Your task to perform on an android device: toggle wifi Image 0: 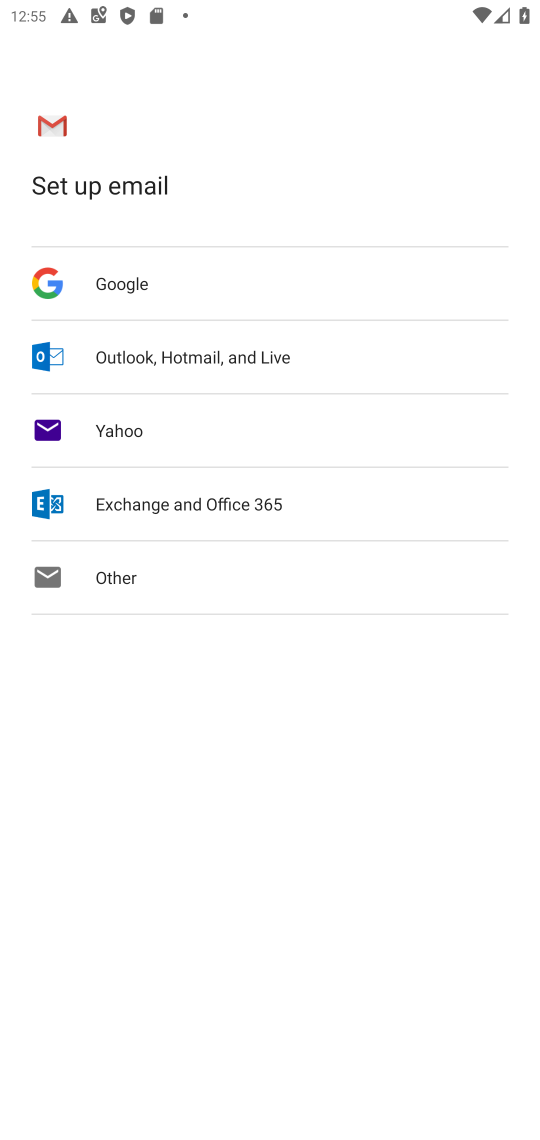
Step 0: press home button
Your task to perform on an android device: toggle wifi Image 1: 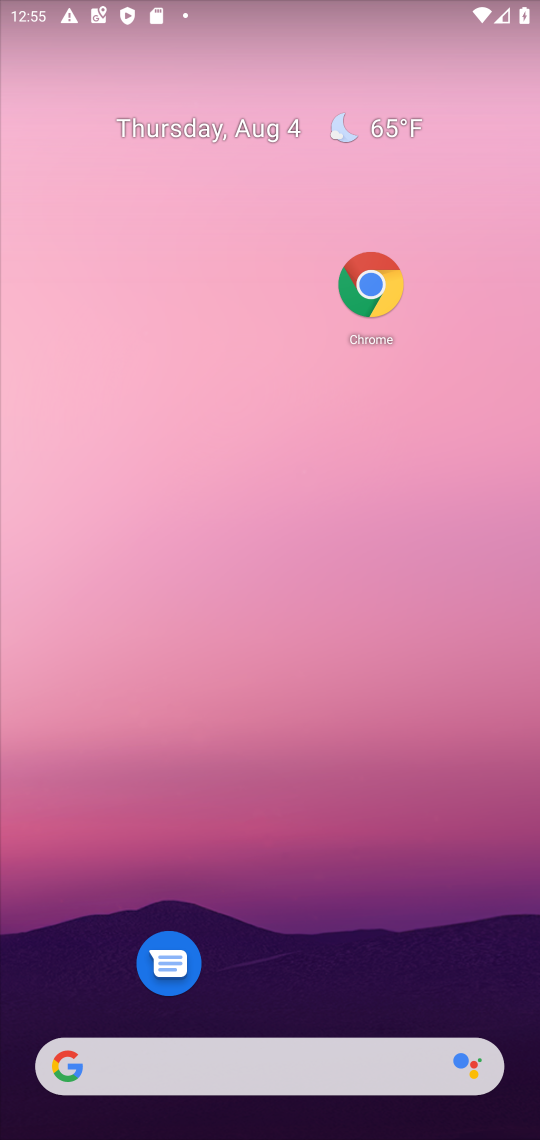
Step 1: drag from (257, 691) to (273, 340)
Your task to perform on an android device: toggle wifi Image 2: 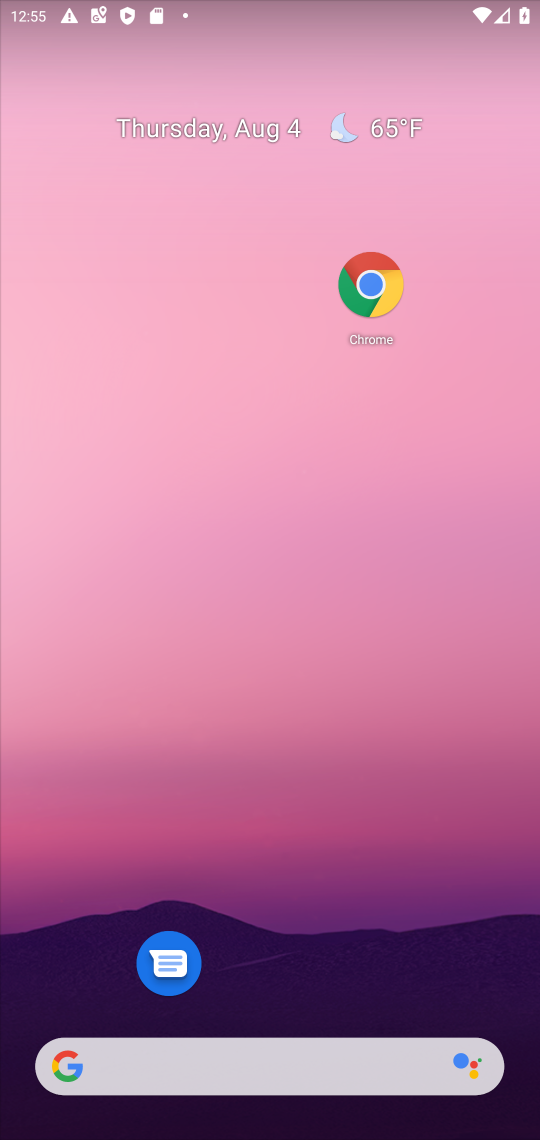
Step 2: drag from (243, 1007) to (314, 186)
Your task to perform on an android device: toggle wifi Image 3: 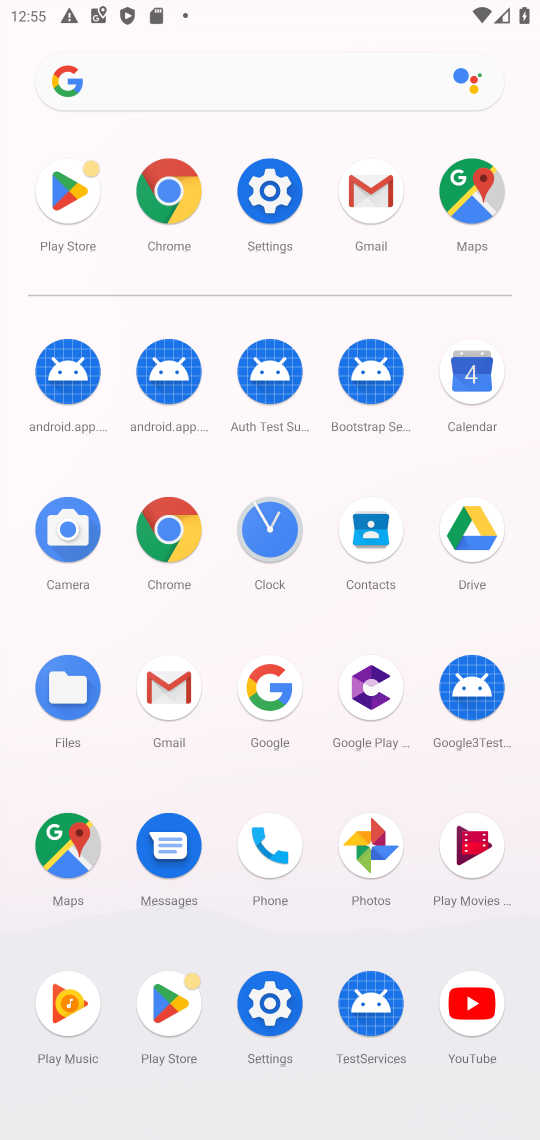
Step 3: click (266, 196)
Your task to perform on an android device: toggle wifi Image 4: 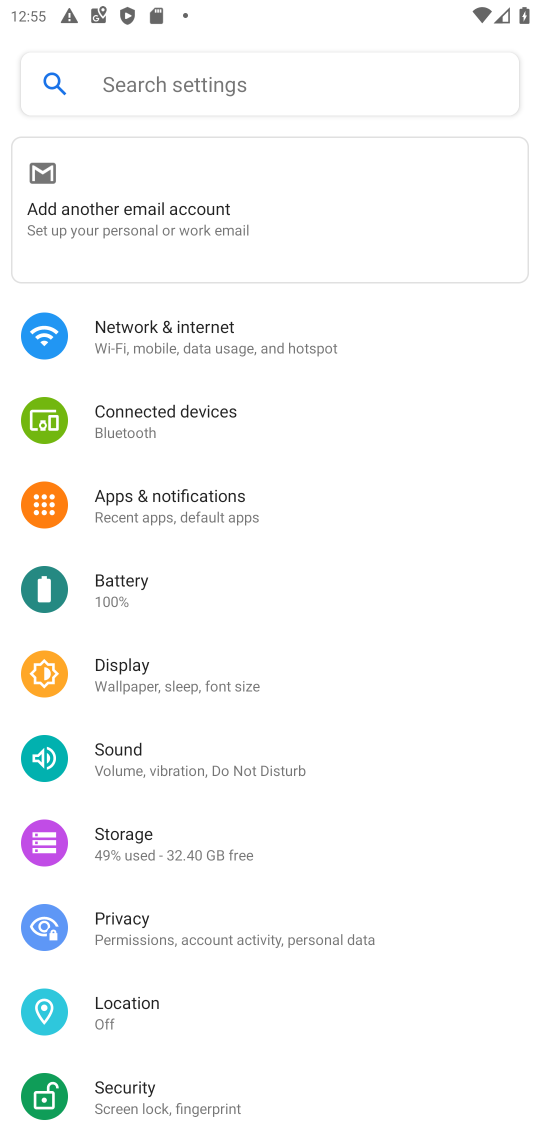
Step 4: click (187, 344)
Your task to perform on an android device: toggle wifi Image 5: 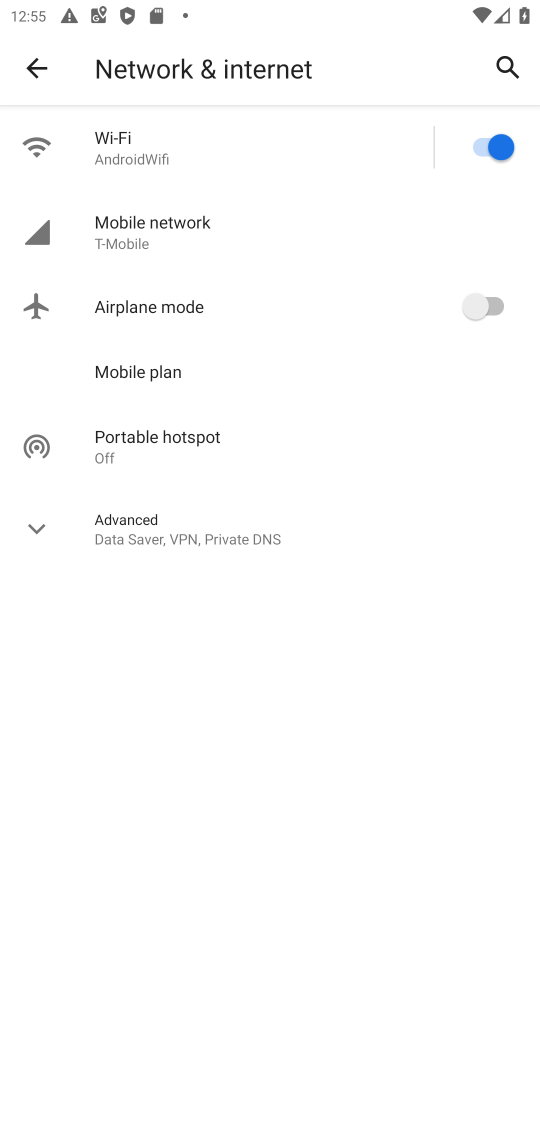
Step 5: click (202, 141)
Your task to perform on an android device: toggle wifi Image 6: 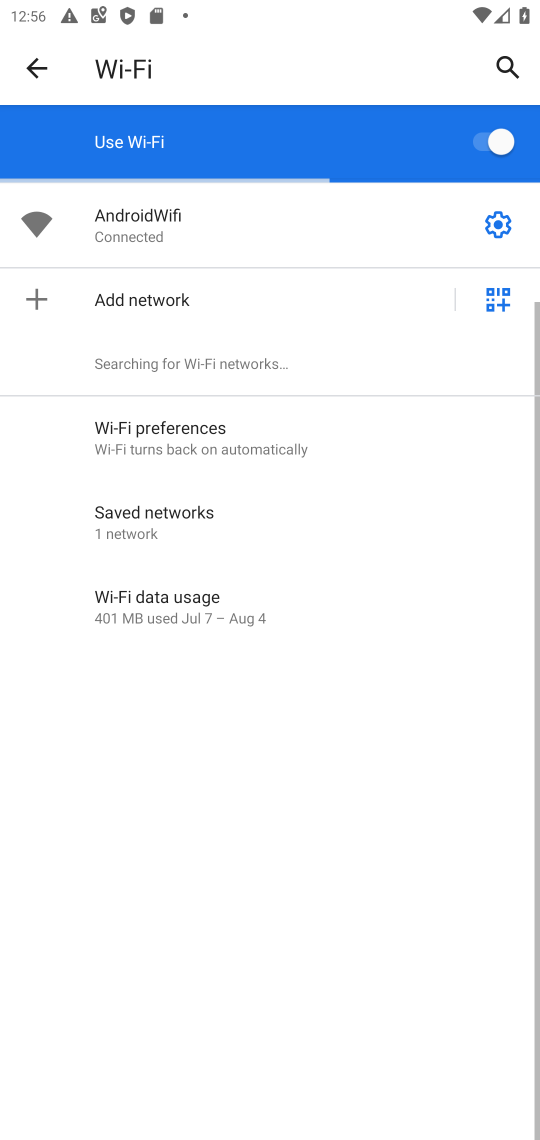
Step 6: task complete